Your task to perform on an android device: turn off airplane mode Image 0: 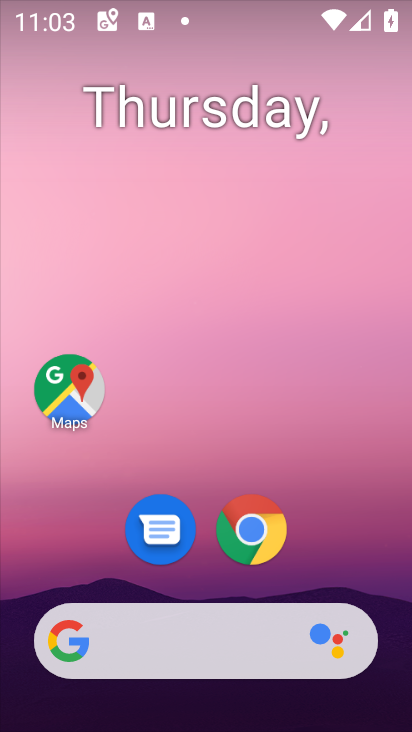
Step 0: drag from (90, 542) to (148, 133)
Your task to perform on an android device: turn off airplane mode Image 1: 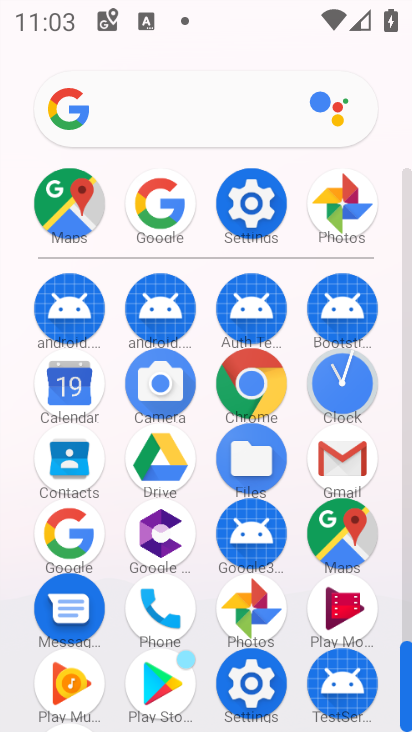
Step 1: drag from (211, 430) to (266, 131)
Your task to perform on an android device: turn off airplane mode Image 2: 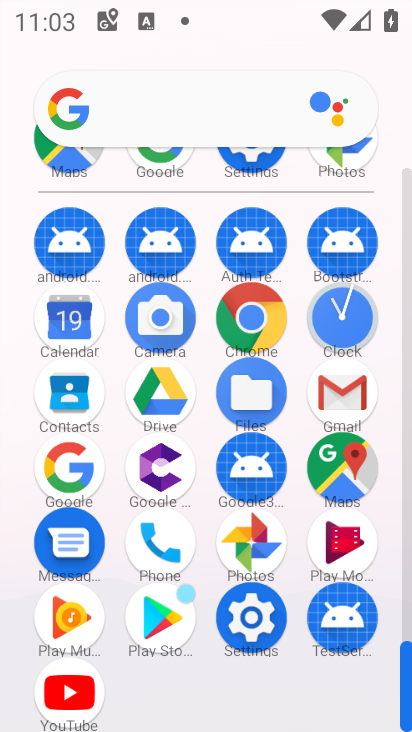
Step 2: click (244, 621)
Your task to perform on an android device: turn off airplane mode Image 3: 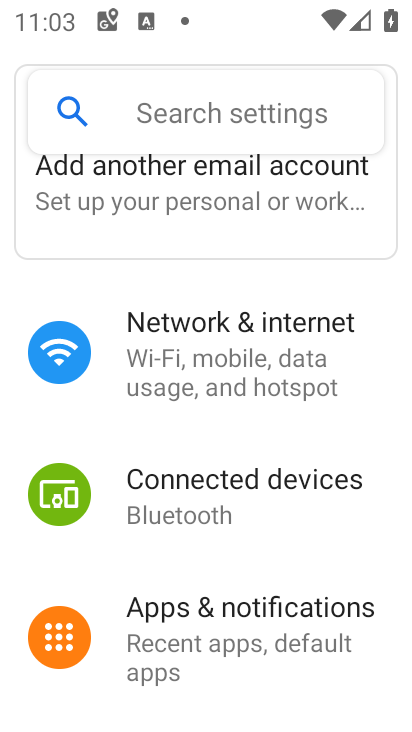
Step 3: drag from (189, 556) to (200, 384)
Your task to perform on an android device: turn off airplane mode Image 4: 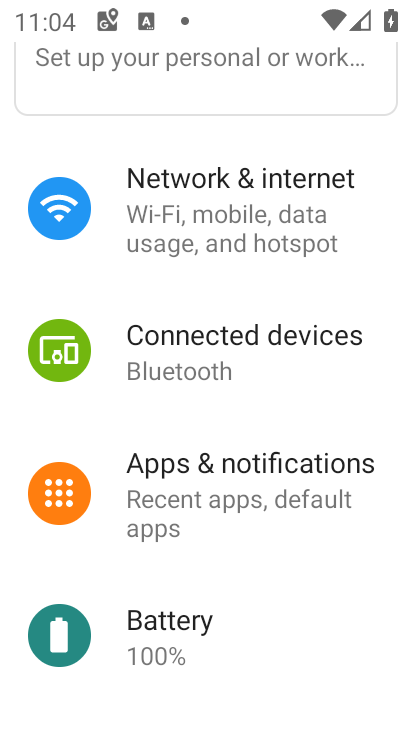
Step 4: click (214, 248)
Your task to perform on an android device: turn off airplane mode Image 5: 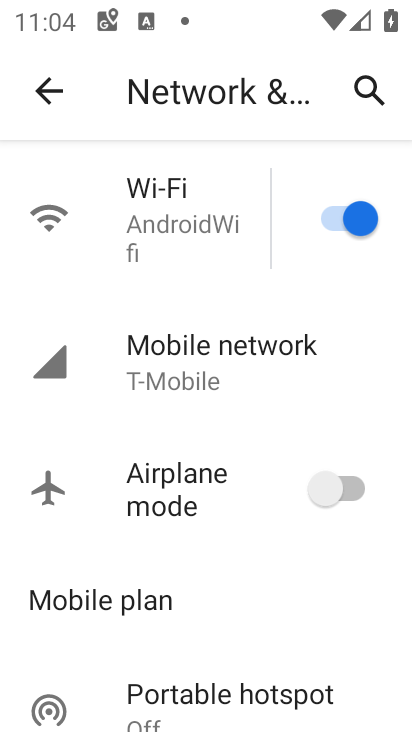
Step 5: task complete